Your task to perform on an android device: Go to Reddit.com Image 0: 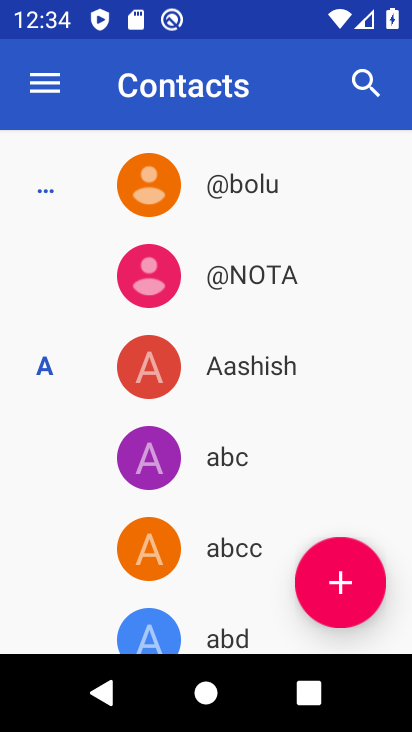
Step 0: press home button
Your task to perform on an android device: Go to Reddit.com Image 1: 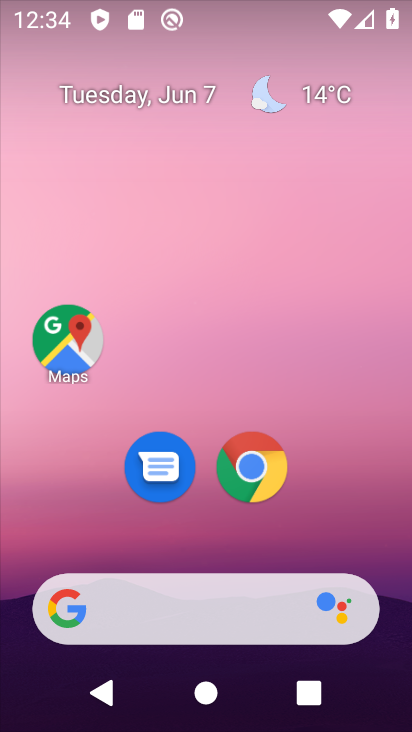
Step 1: click (267, 469)
Your task to perform on an android device: Go to Reddit.com Image 2: 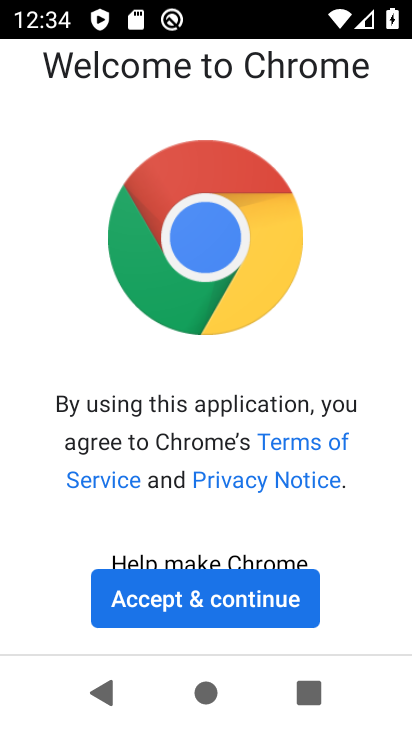
Step 2: click (205, 623)
Your task to perform on an android device: Go to Reddit.com Image 3: 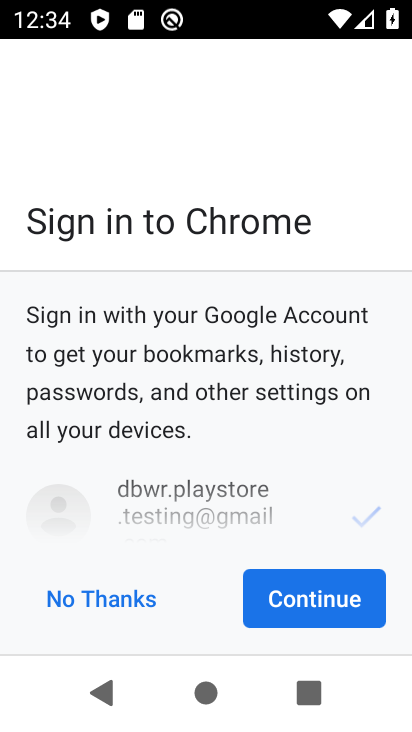
Step 3: click (303, 587)
Your task to perform on an android device: Go to Reddit.com Image 4: 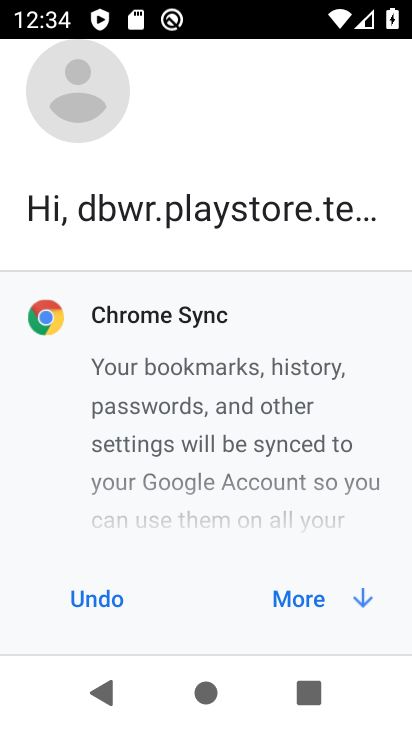
Step 4: click (329, 585)
Your task to perform on an android device: Go to Reddit.com Image 5: 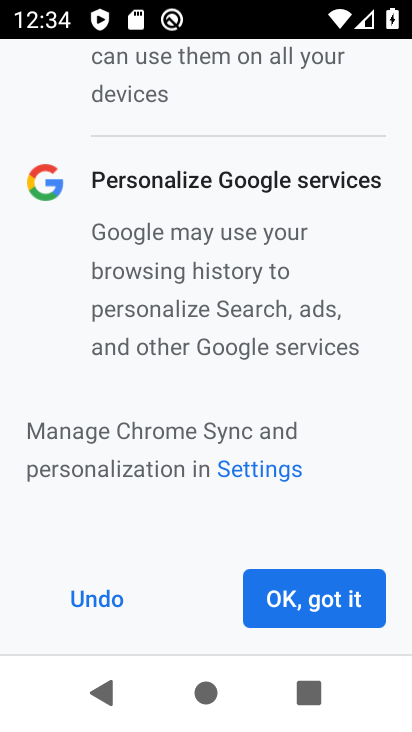
Step 5: click (297, 595)
Your task to perform on an android device: Go to Reddit.com Image 6: 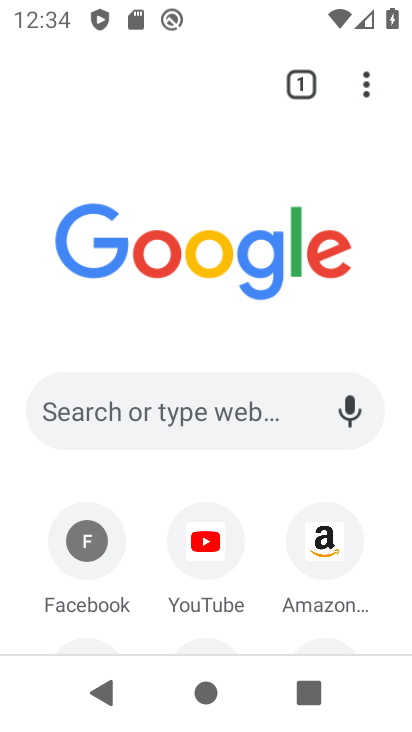
Step 6: click (200, 413)
Your task to perform on an android device: Go to Reddit.com Image 7: 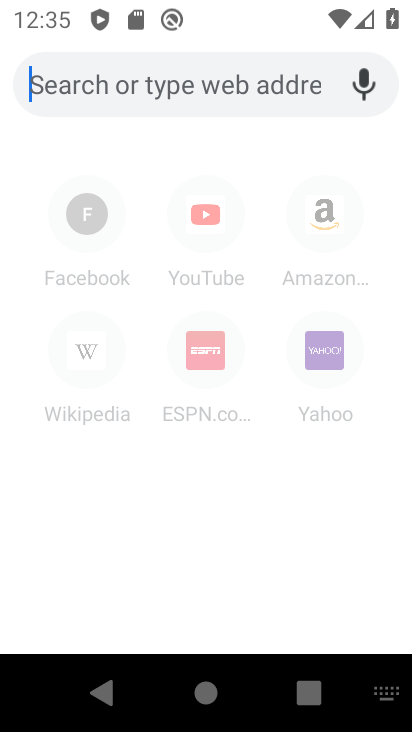
Step 7: type "reddit.com"
Your task to perform on an android device: Go to Reddit.com Image 8: 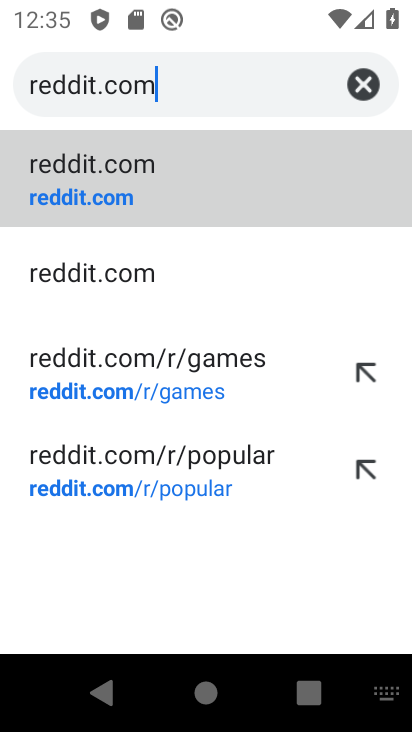
Step 8: click (114, 153)
Your task to perform on an android device: Go to Reddit.com Image 9: 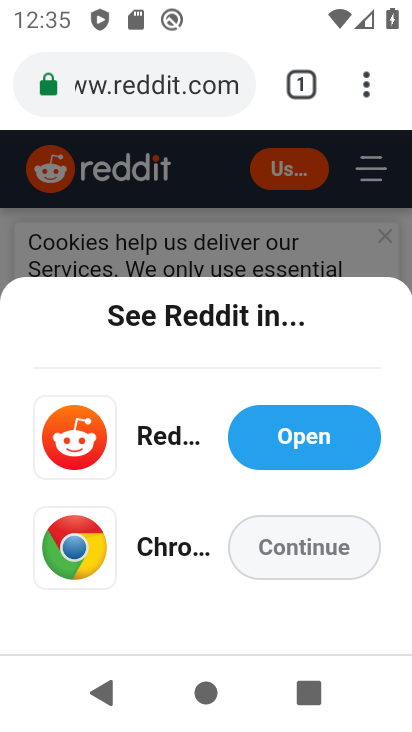
Step 9: task complete